Your task to perform on an android device: open chrome privacy settings Image 0: 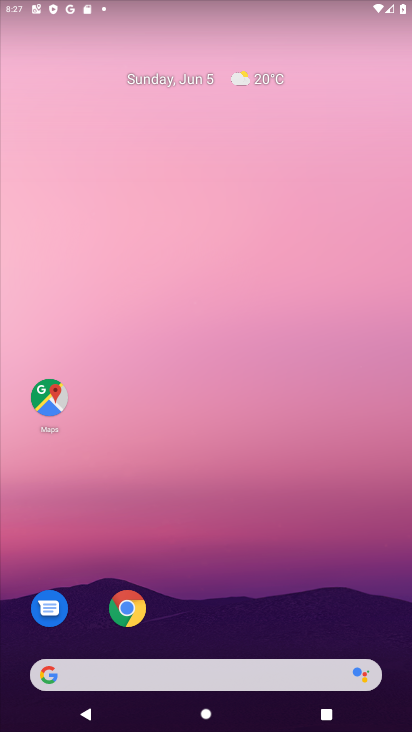
Step 0: click (130, 604)
Your task to perform on an android device: open chrome privacy settings Image 1: 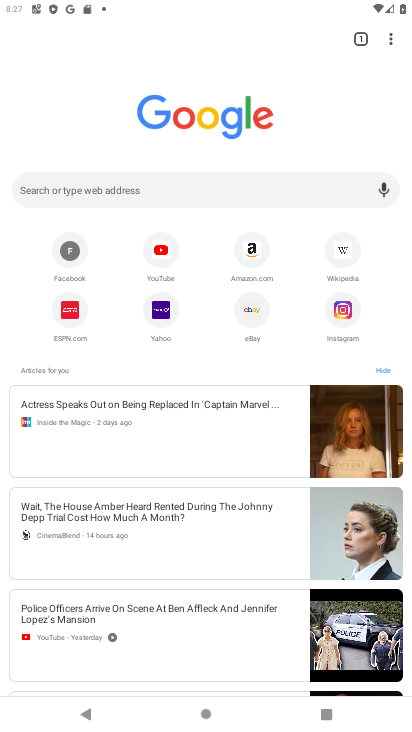
Step 1: click (389, 34)
Your task to perform on an android device: open chrome privacy settings Image 2: 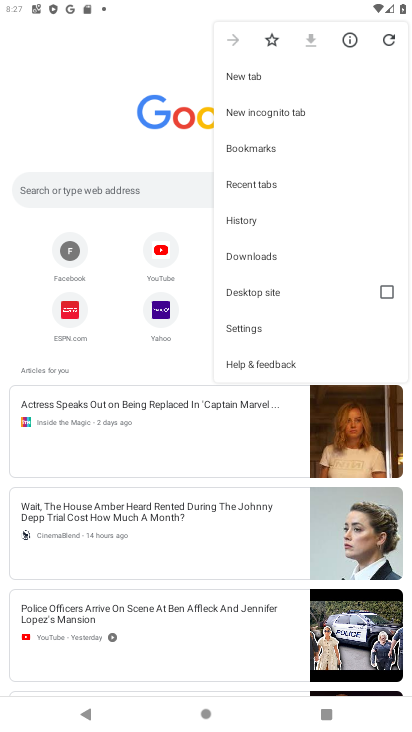
Step 2: click (239, 332)
Your task to perform on an android device: open chrome privacy settings Image 3: 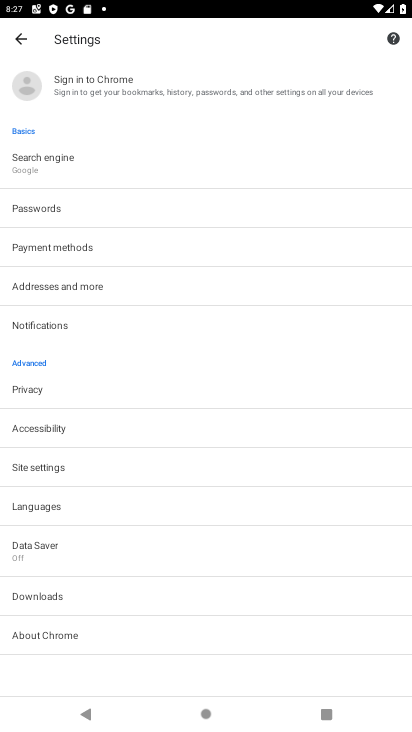
Step 3: click (13, 385)
Your task to perform on an android device: open chrome privacy settings Image 4: 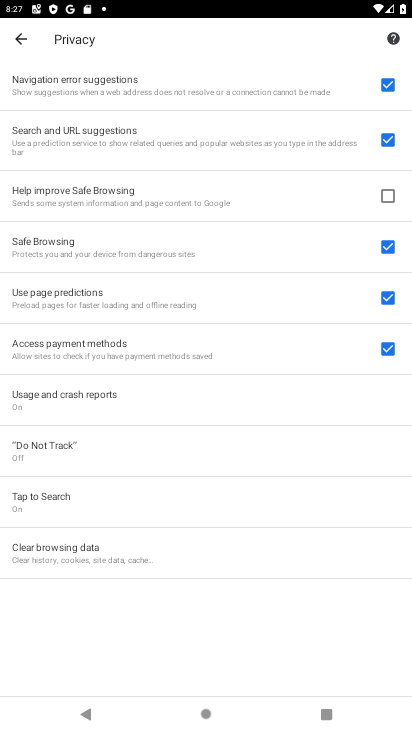
Step 4: task complete